Your task to perform on an android device: star an email in the gmail app Image 0: 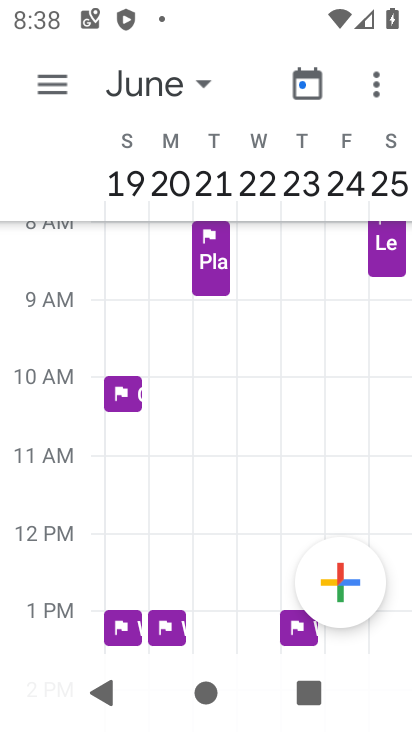
Step 0: press home button
Your task to perform on an android device: star an email in the gmail app Image 1: 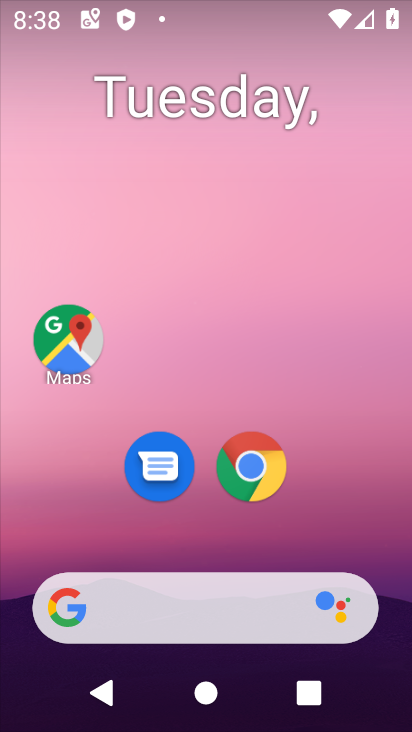
Step 1: drag from (228, 557) to (227, 69)
Your task to perform on an android device: star an email in the gmail app Image 2: 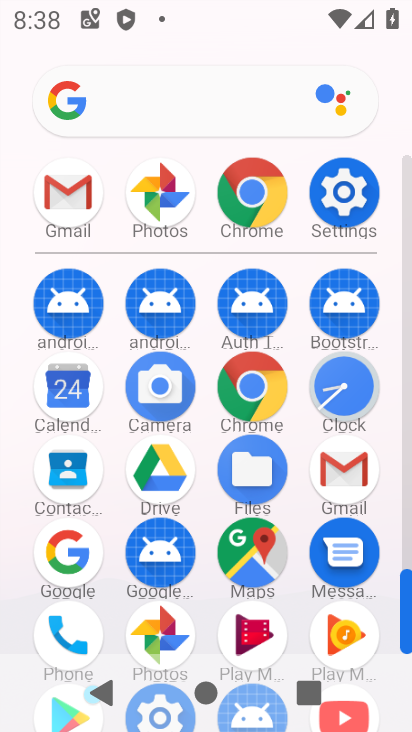
Step 2: click (349, 468)
Your task to perform on an android device: star an email in the gmail app Image 3: 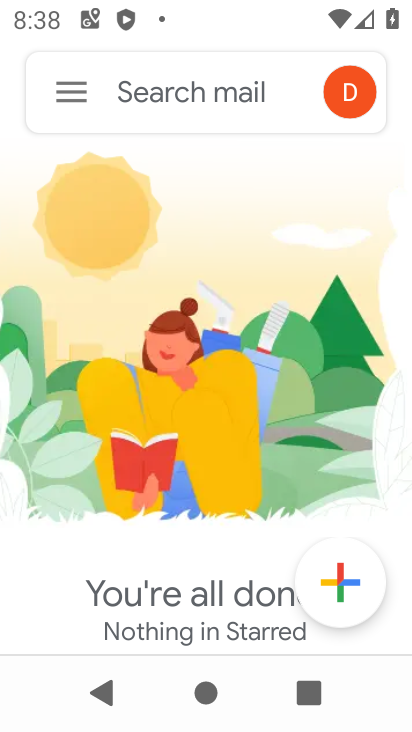
Step 3: click (67, 94)
Your task to perform on an android device: star an email in the gmail app Image 4: 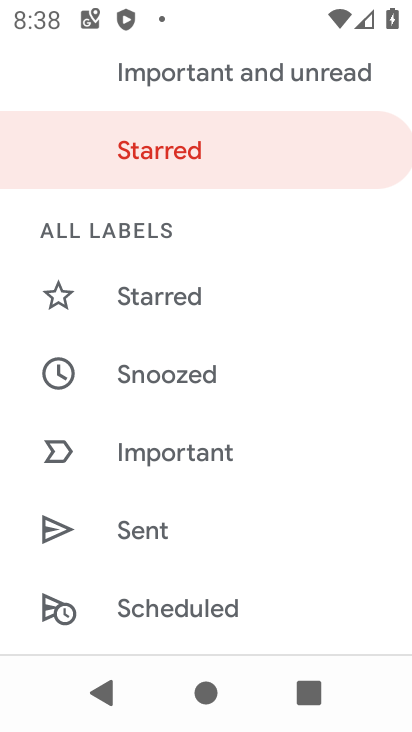
Step 4: drag from (179, 551) to (187, 423)
Your task to perform on an android device: star an email in the gmail app Image 5: 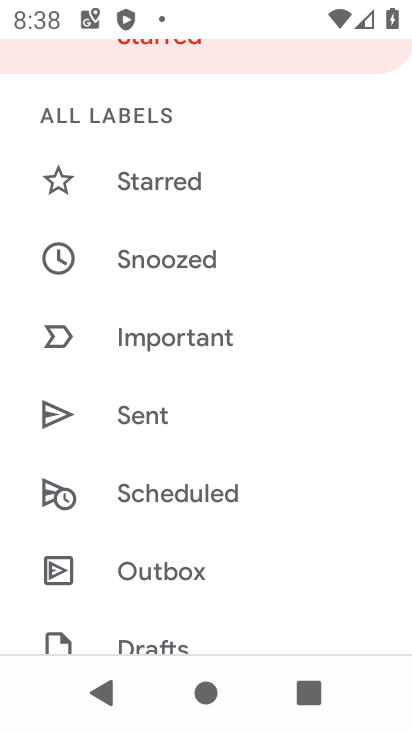
Step 5: drag from (174, 523) to (185, 330)
Your task to perform on an android device: star an email in the gmail app Image 6: 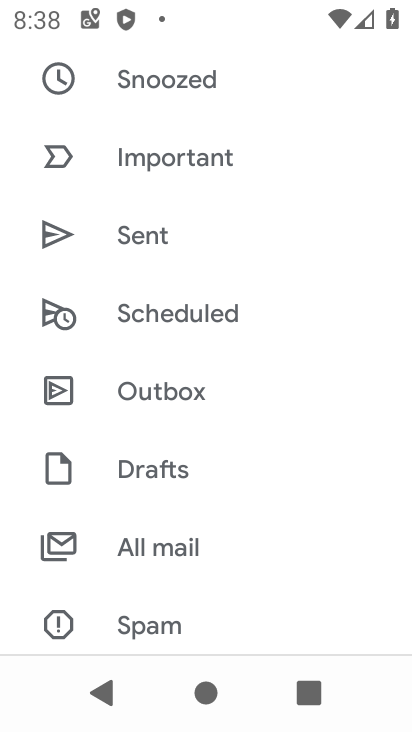
Step 6: click (169, 550)
Your task to perform on an android device: star an email in the gmail app Image 7: 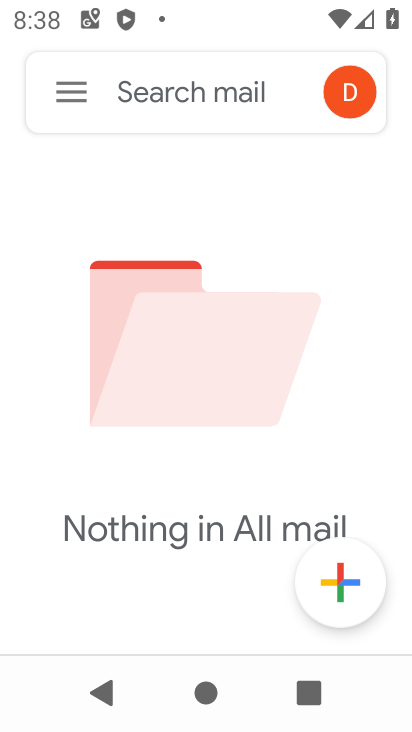
Step 7: task complete